Your task to perform on an android device: Open Google Image 0: 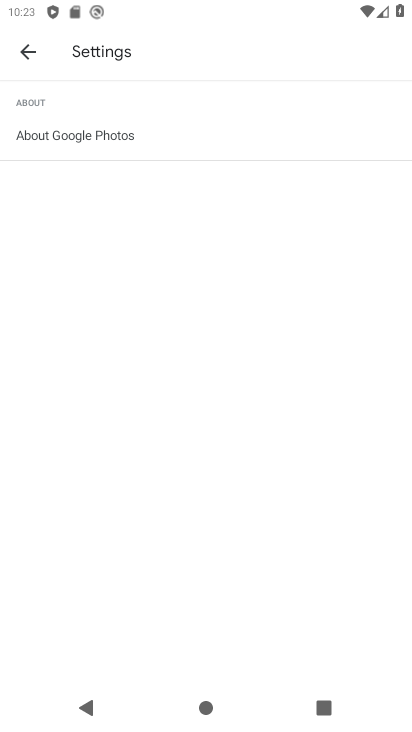
Step 0: press home button
Your task to perform on an android device: Open Google Image 1: 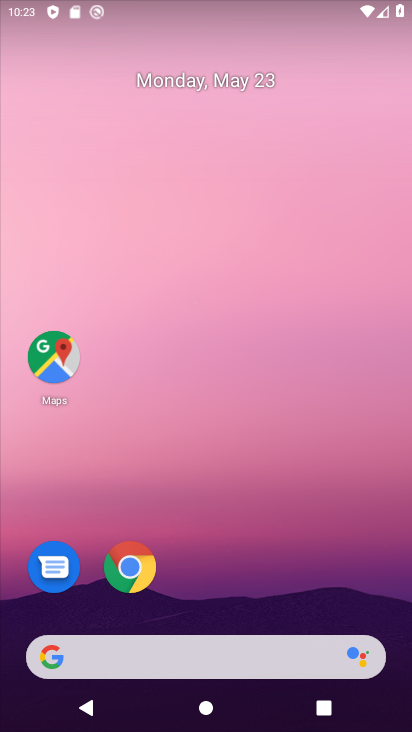
Step 1: drag from (170, 618) to (229, 101)
Your task to perform on an android device: Open Google Image 2: 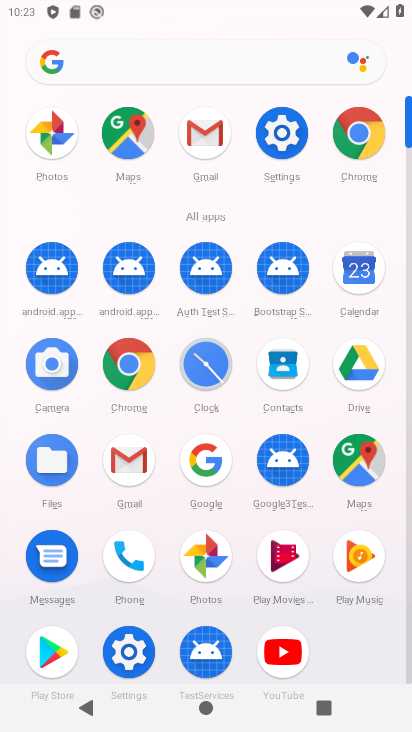
Step 2: click (208, 473)
Your task to perform on an android device: Open Google Image 3: 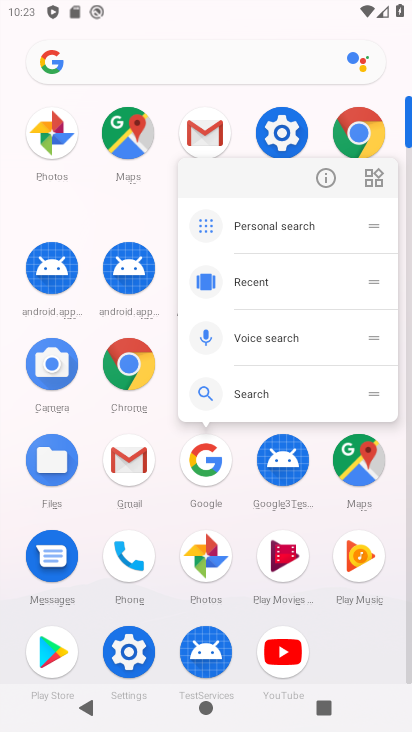
Step 3: click (204, 459)
Your task to perform on an android device: Open Google Image 4: 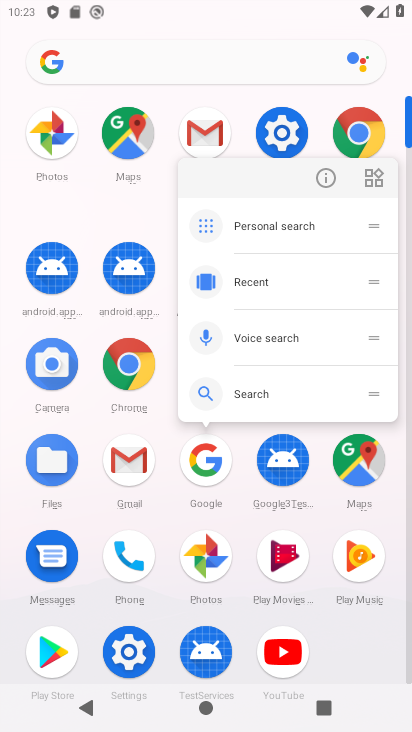
Step 4: click (212, 462)
Your task to perform on an android device: Open Google Image 5: 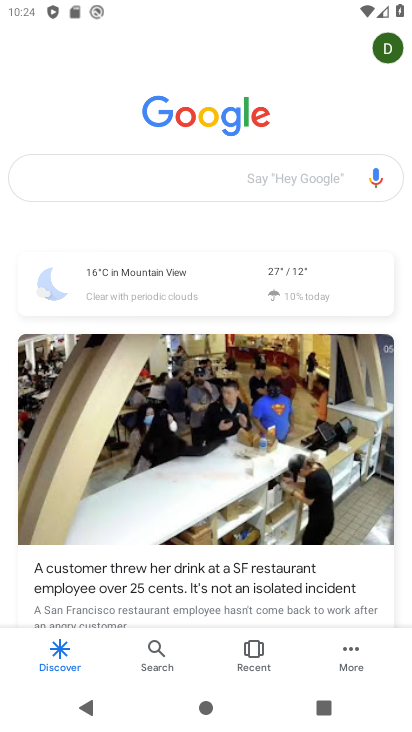
Step 5: task complete